Your task to perform on an android device: Open privacy settings Image 0: 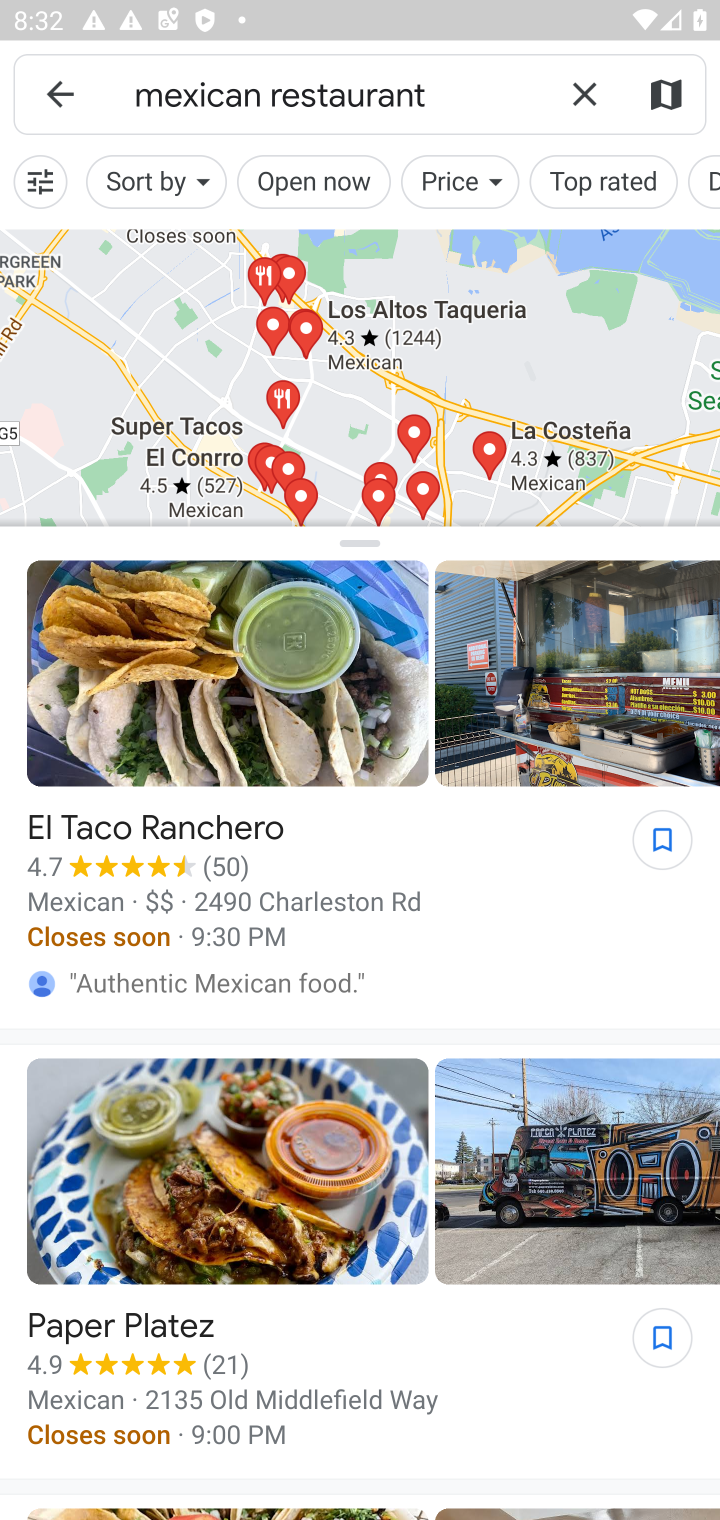
Step 0: press home button
Your task to perform on an android device: Open privacy settings Image 1: 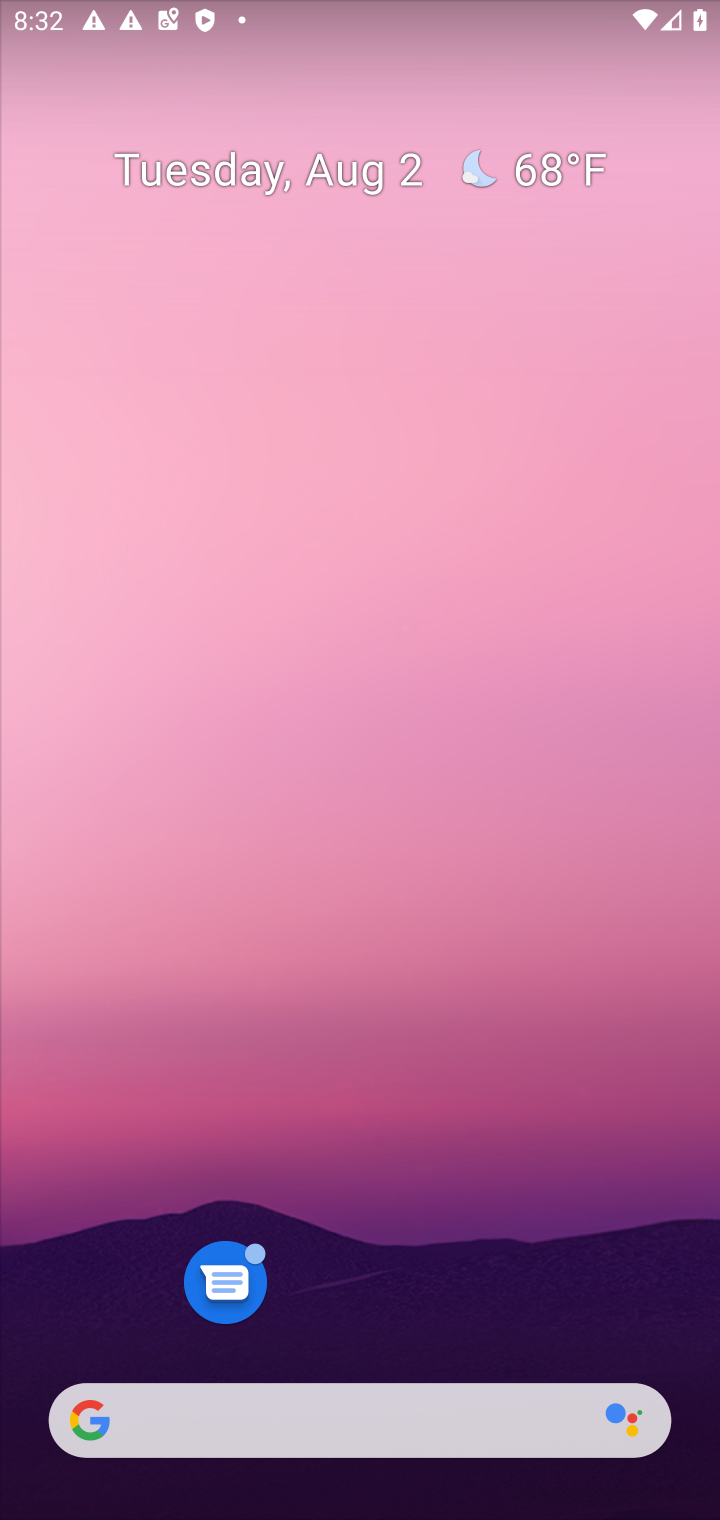
Step 1: drag from (285, 1339) to (367, 36)
Your task to perform on an android device: Open privacy settings Image 2: 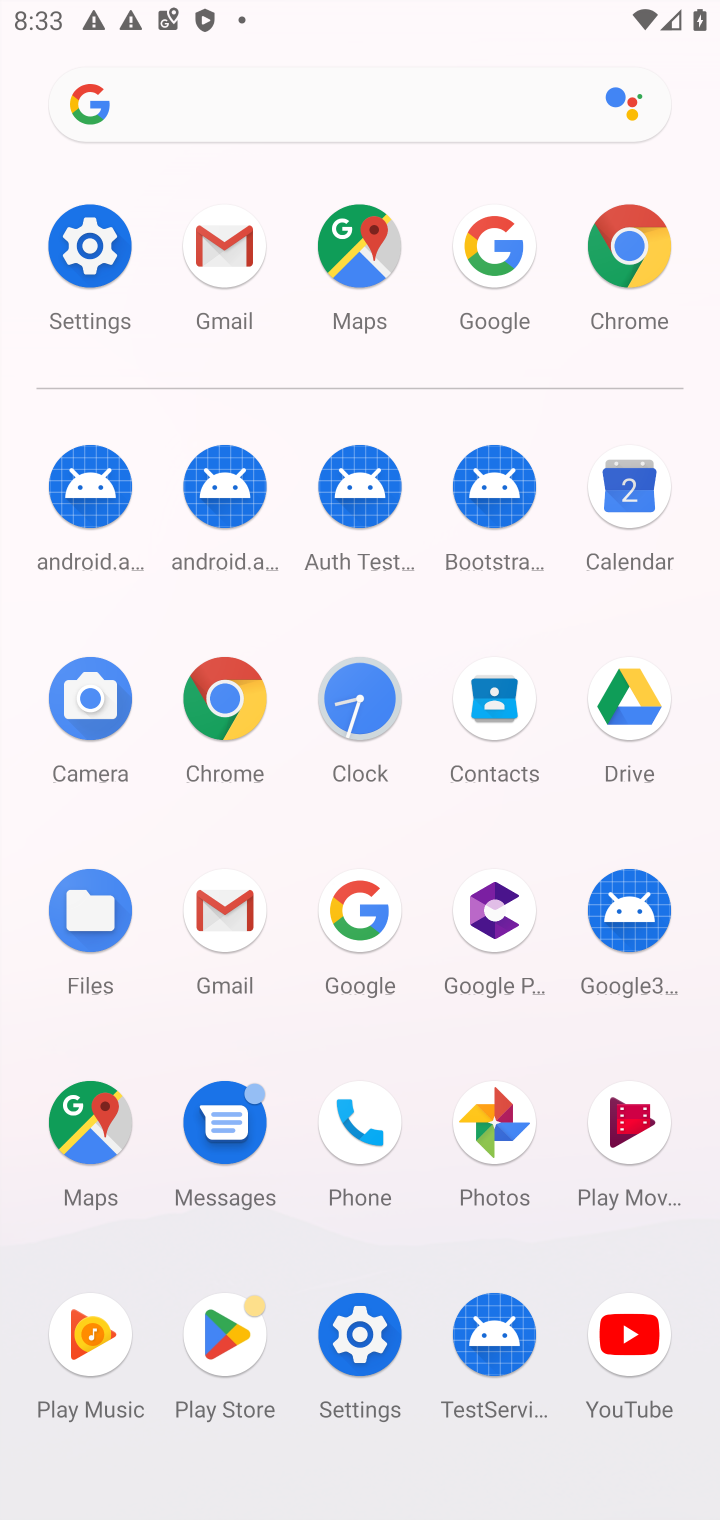
Step 2: click (106, 248)
Your task to perform on an android device: Open privacy settings Image 3: 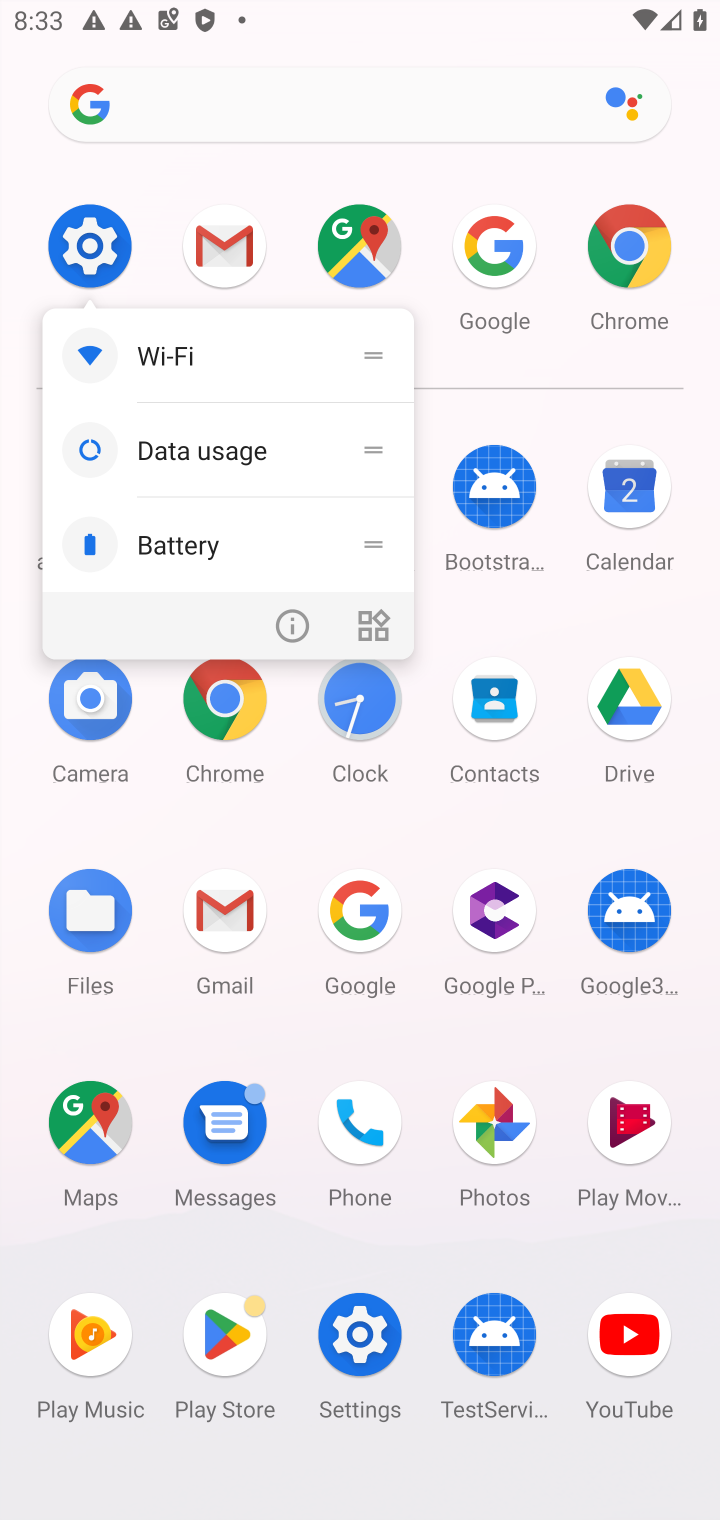
Step 3: click (93, 240)
Your task to perform on an android device: Open privacy settings Image 4: 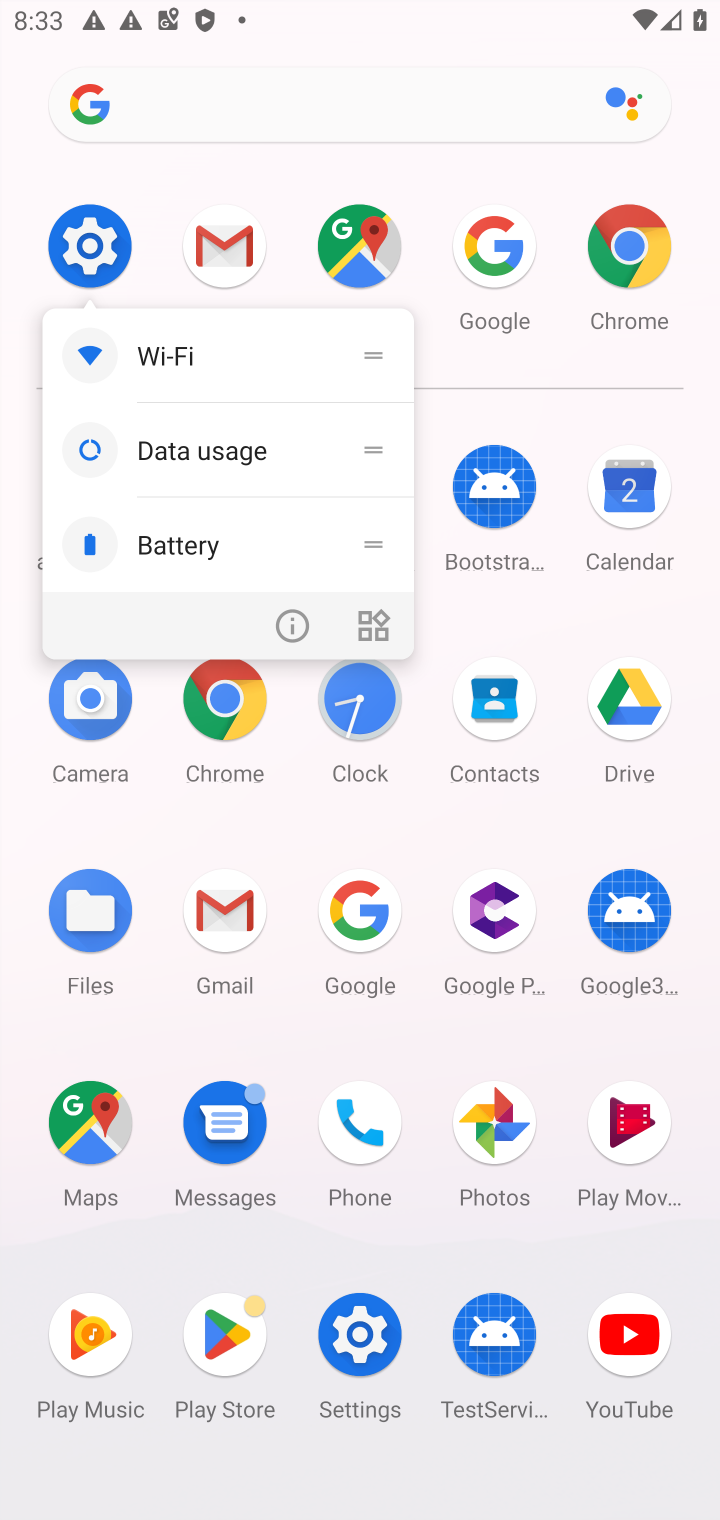
Step 4: click (93, 240)
Your task to perform on an android device: Open privacy settings Image 5: 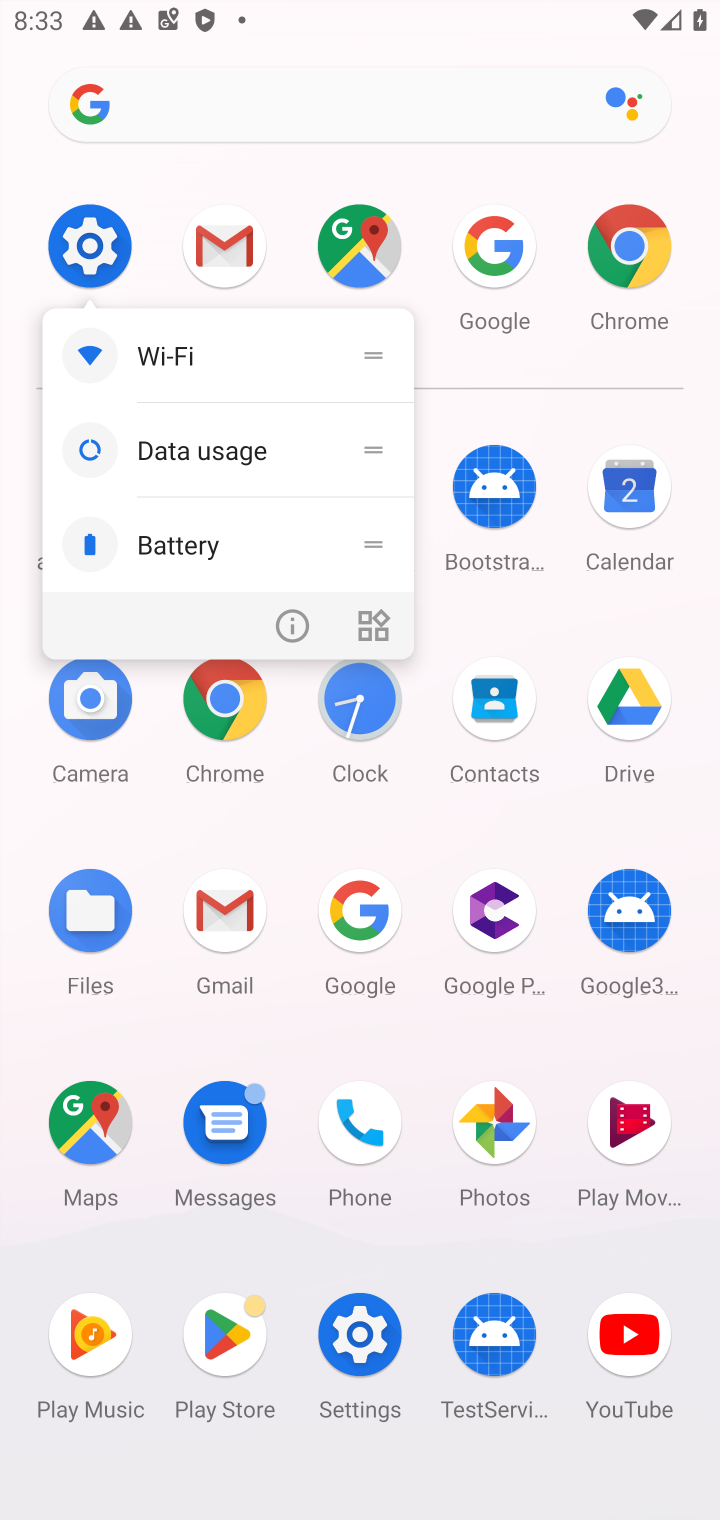
Step 5: click (90, 227)
Your task to perform on an android device: Open privacy settings Image 6: 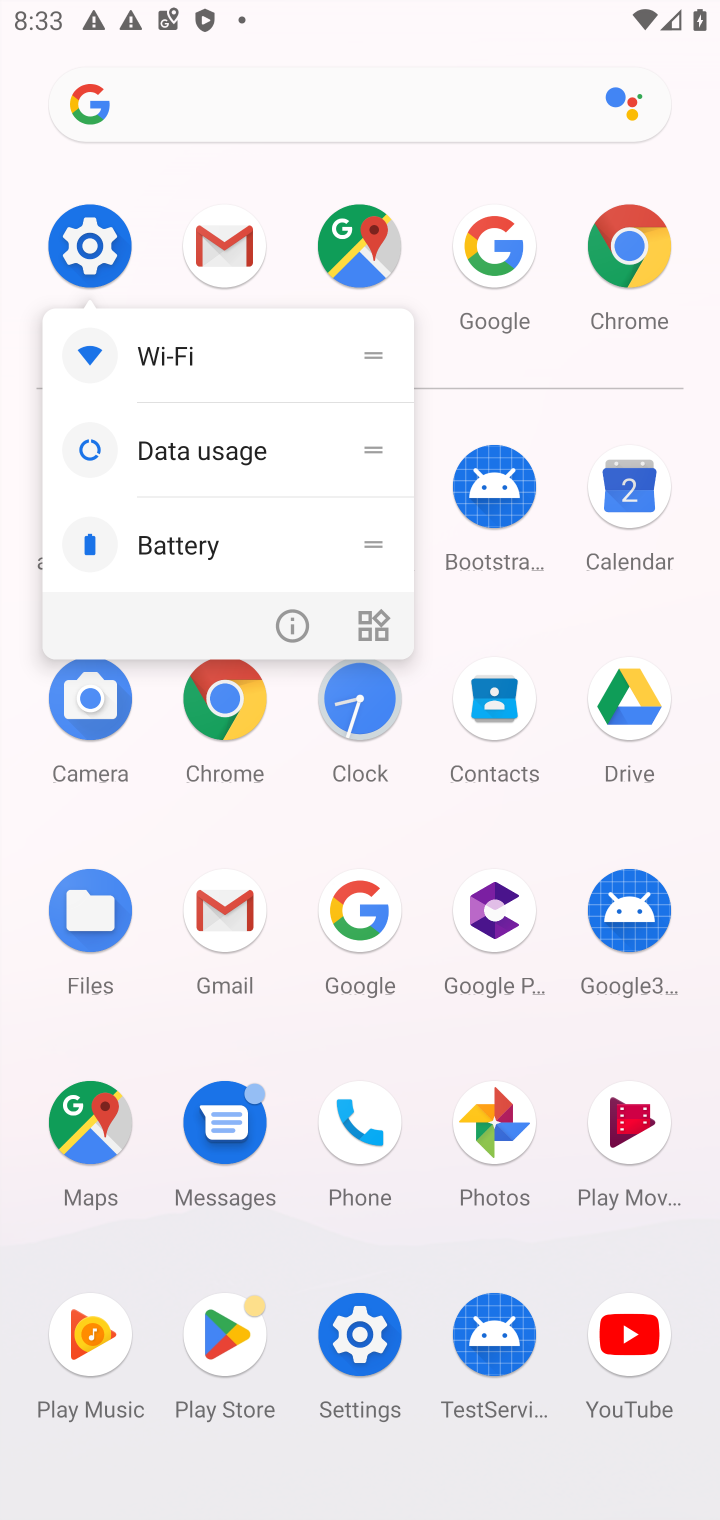
Step 6: click (65, 268)
Your task to perform on an android device: Open privacy settings Image 7: 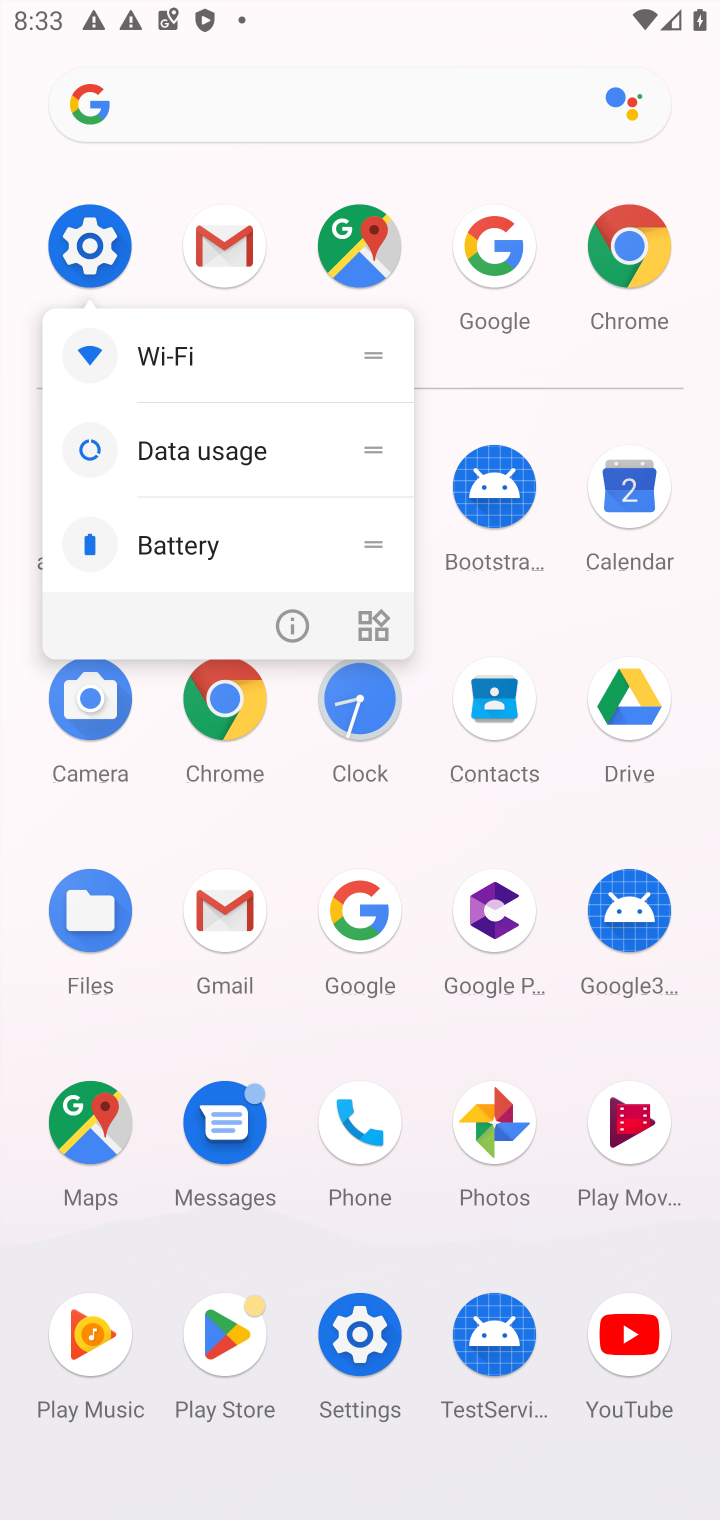
Step 7: click (63, 268)
Your task to perform on an android device: Open privacy settings Image 8: 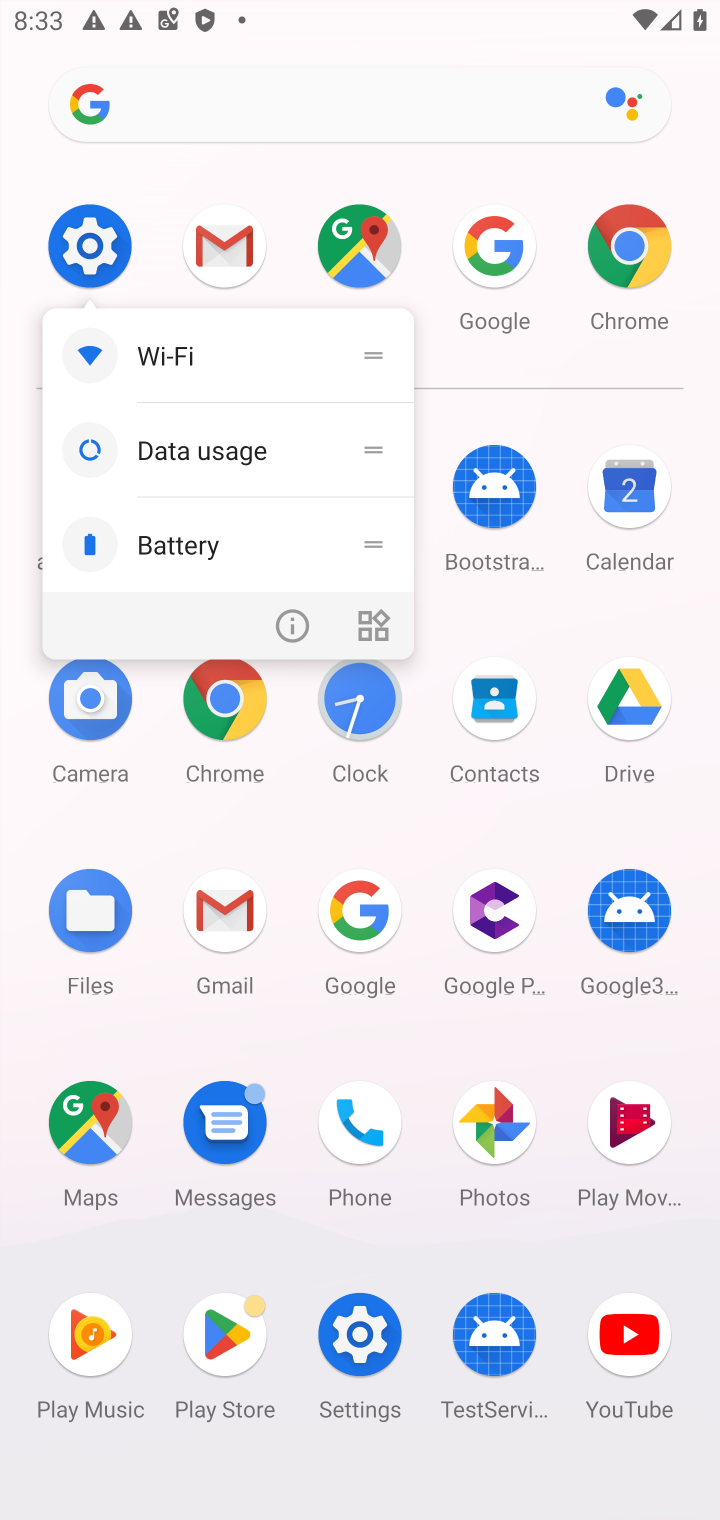
Step 8: click (63, 268)
Your task to perform on an android device: Open privacy settings Image 9: 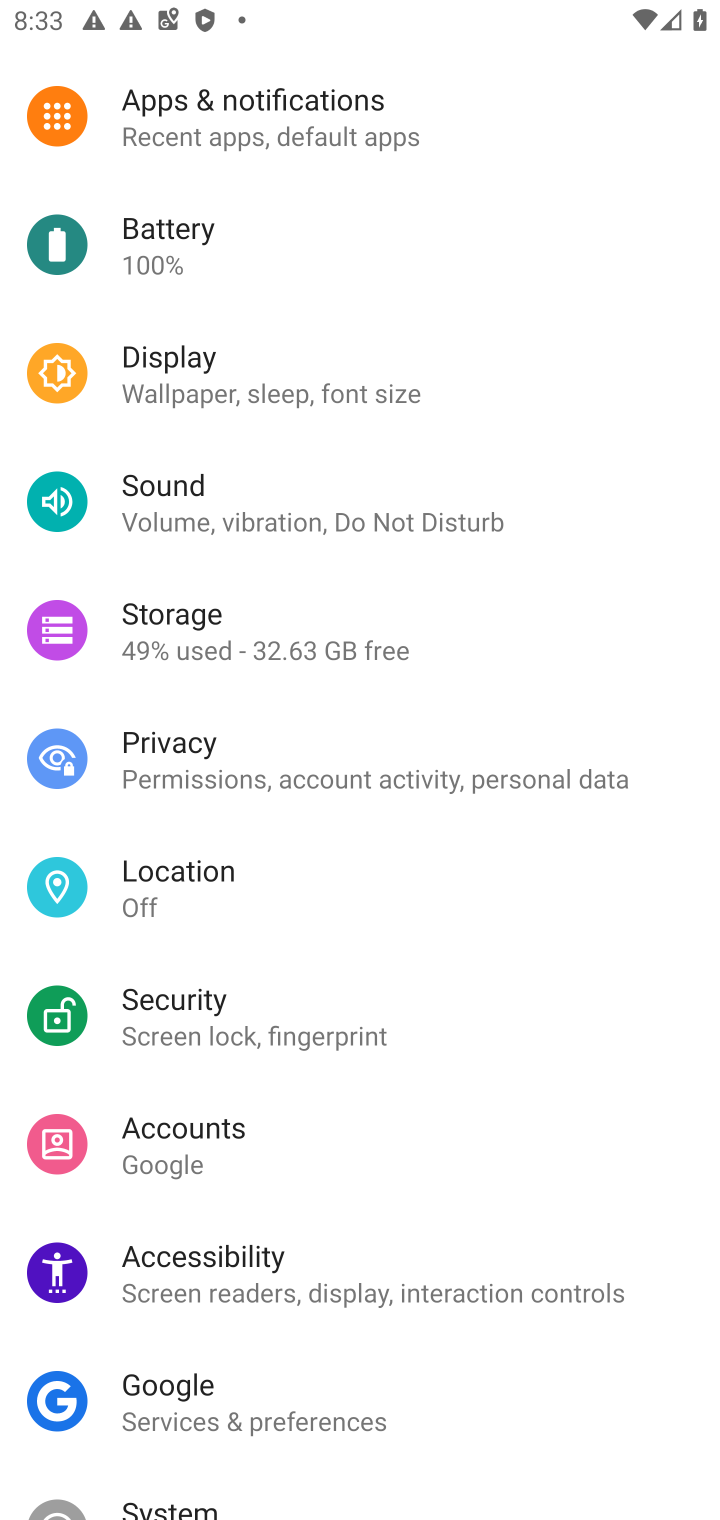
Step 9: click (129, 777)
Your task to perform on an android device: Open privacy settings Image 10: 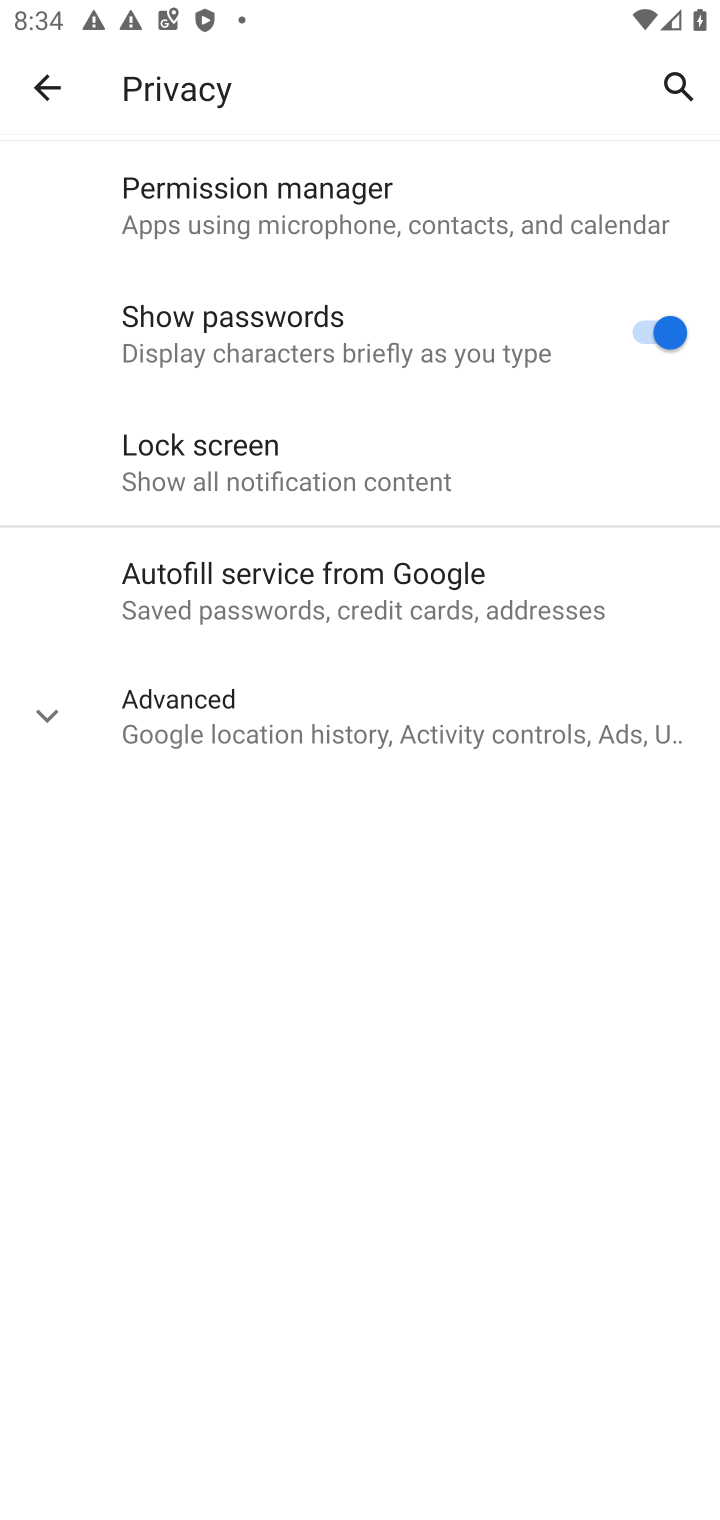
Step 10: task complete